Your task to perform on an android device: Do I have any events tomorrow? Image 0: 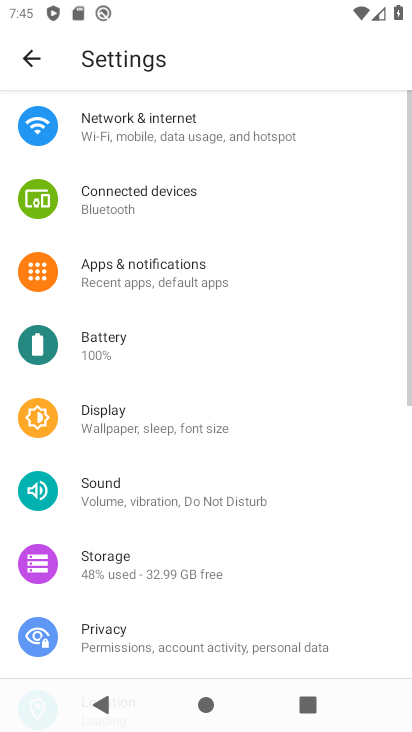
Step 0: press home button
Your task to perform on an android device: Do I have any events tomorrow? Image 1: 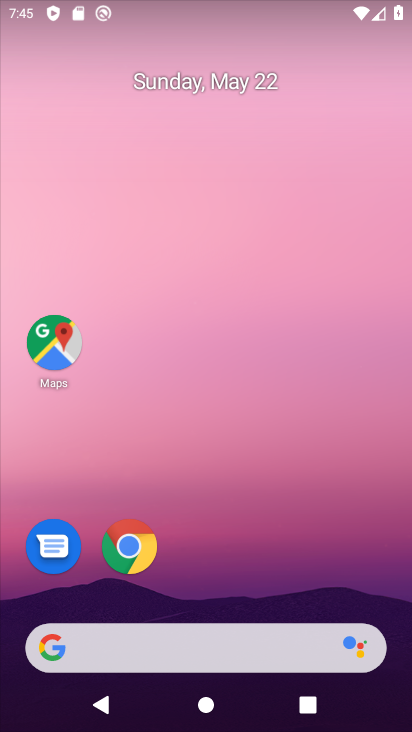
Step 1: drag from (199, 640) to (366, 192)
Your task to perform on an android device: Do I have any events tomorrow? Image 2: 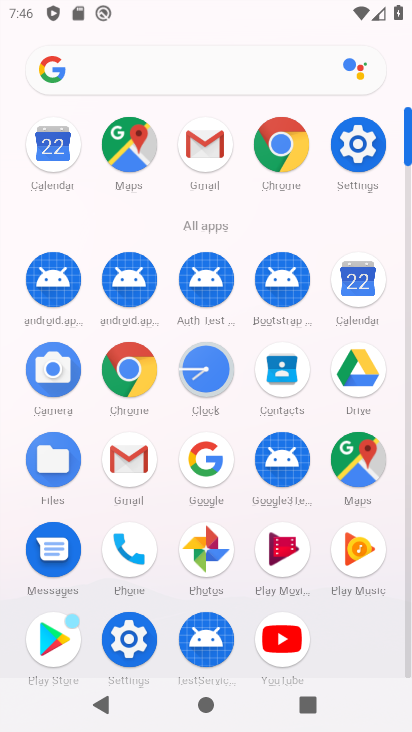
Step 2: click (349, 290)
Your task to perform on an android device: Do I have any events tomorrow? Image 3: 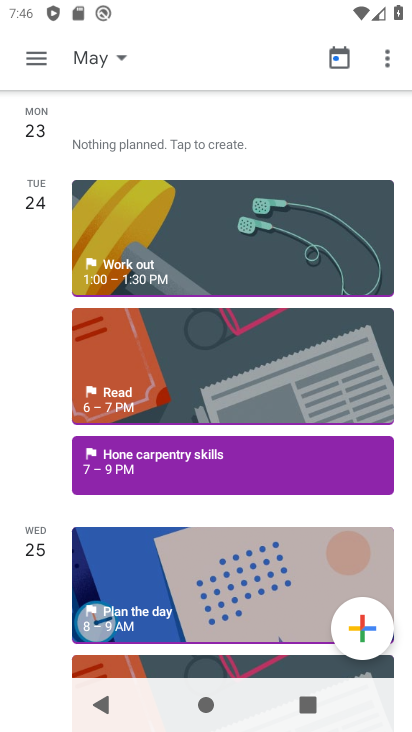
Step 3: task complete